Your task to perform on an android device: manage bookmarks in the chrome app Image 0: 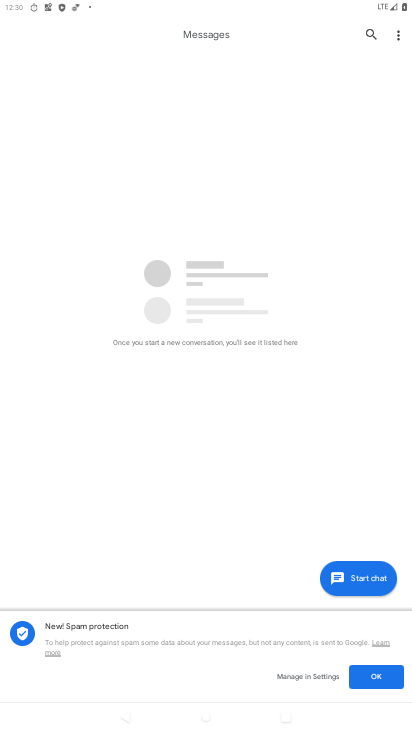
Step 0: press home button
Your task to perform on an android device: manage bookmarks in the chrome app Image 1: 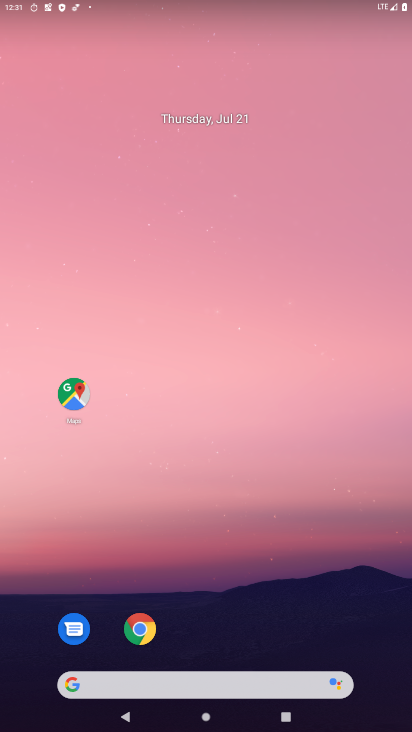
Step 1: drag from (228, 680) to (214, 42)
Your task to perform on an android device: manage bookmarks in the chrome app Image 2: 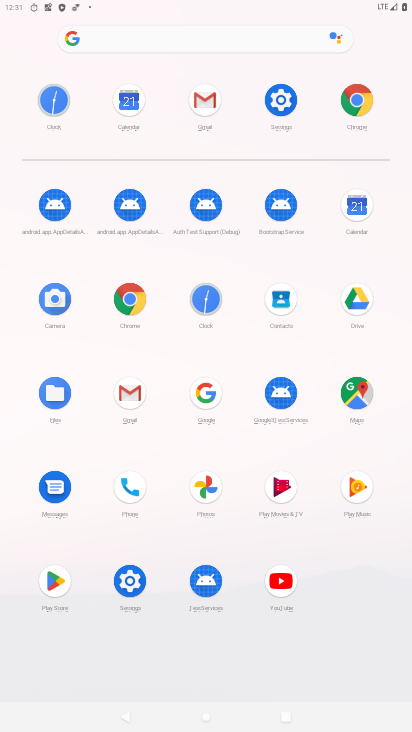
Step 2: click (131, 308)
Your task to perform on an android device: manage bookmarks in the chrome app Image 3: 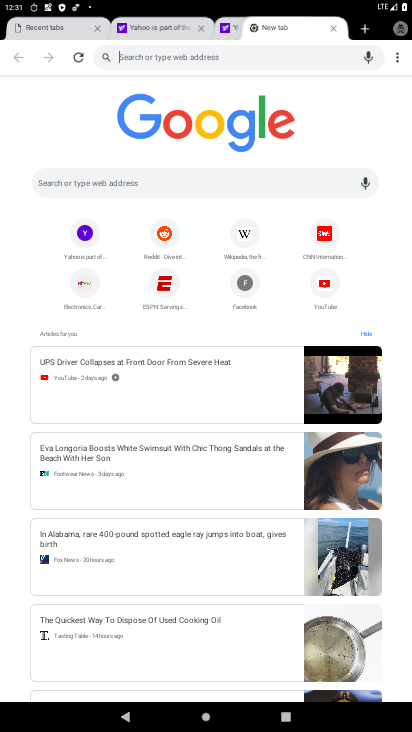
Step 3: task complete